Your task to perform on an android device: open a bookmark in the chrome app Image 0: 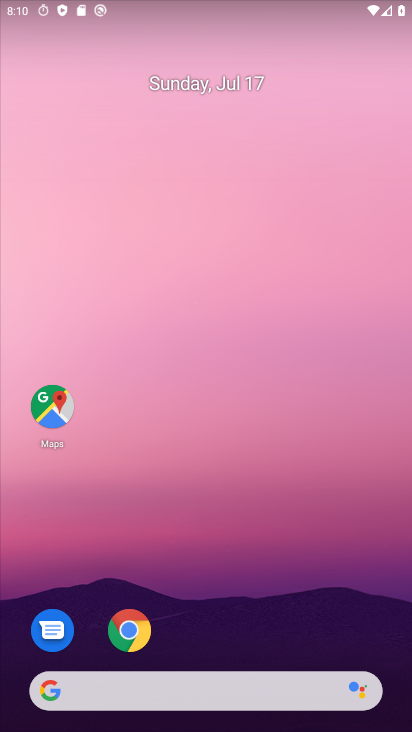
Step 0: click (142, 632)
Your task to perform on an android device: open a bookmark in the chrome app Image 1: 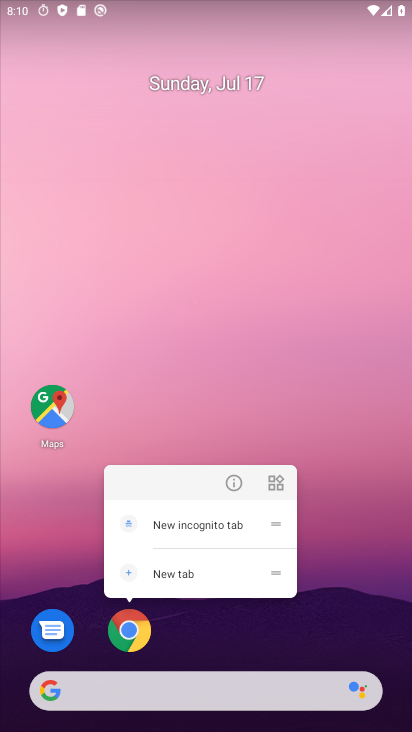
Step 1: click (128, 640)
Your task to perform on an android device: open a bookmark in the chrome app Image 2: 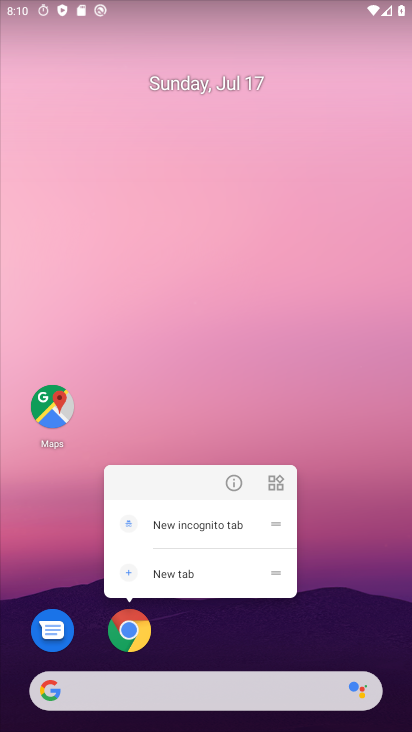
Step 2: click (114, 610)
Your task to perform on an android device: open a bookmark in the chrome app Image 3: 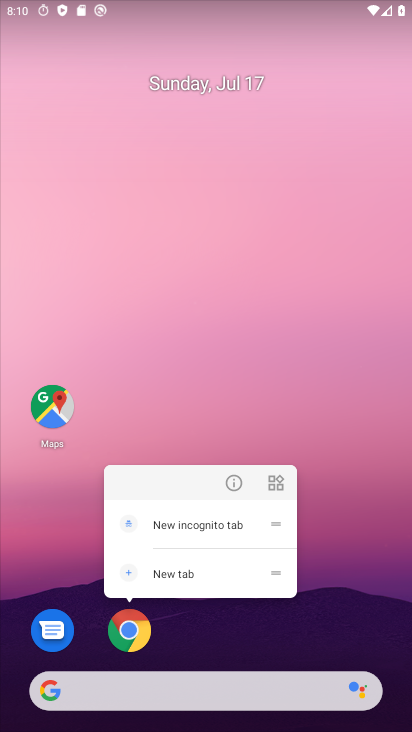
Step 3: click (129, 639)
Your task to perform on an android device: open a bookmark in the chrome app Image 4: 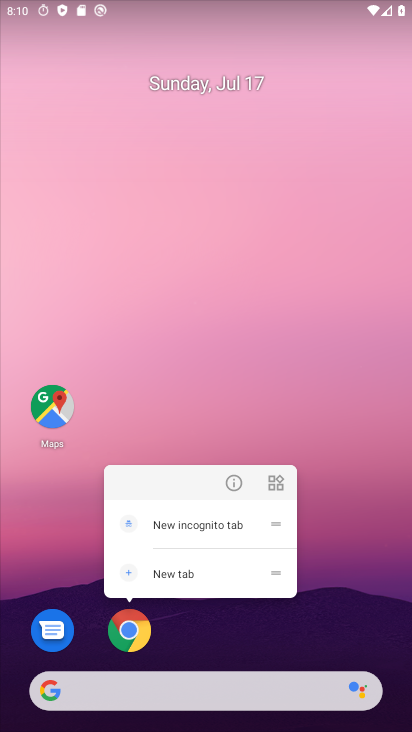
Step 4: click (132, 632)
Your task to perform on an android device: open a bookmark in the chrome app Image 5: 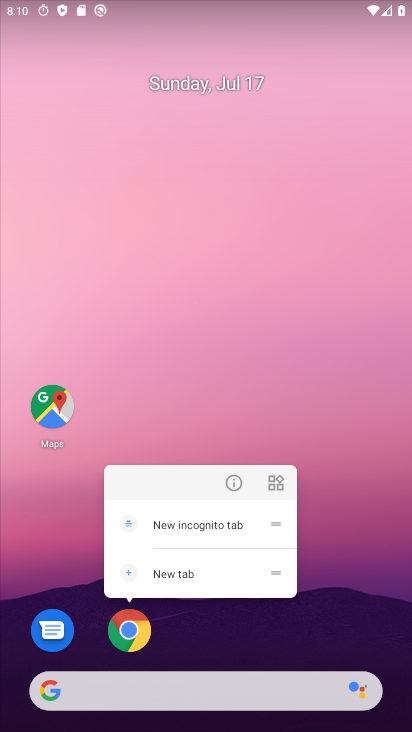
Step 5: click (178, 599)
Your task to perform on an android device: open a bookmark in the chrome app Image 6: 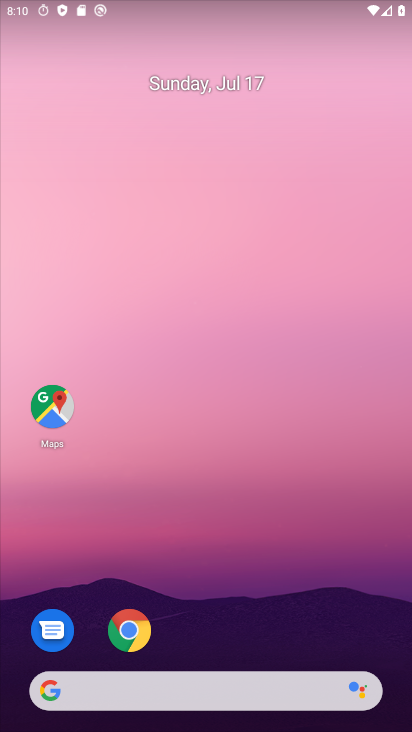
Step 6: click (130, 631)
Your task to perform on an android device: open a bookmark in the chrome app Image 7: 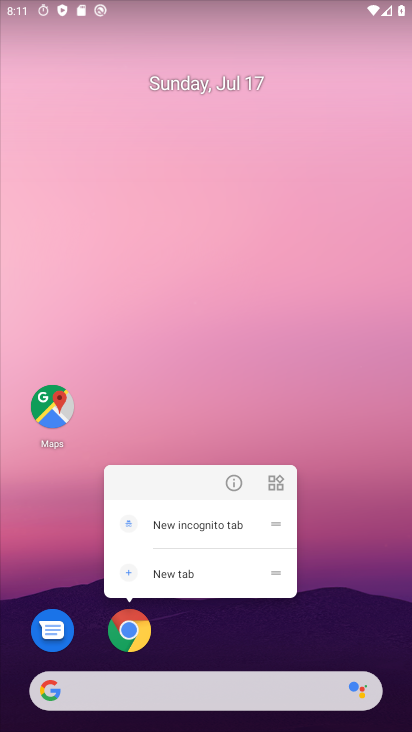
Step 7: click (130, 630)
Your task to perform on an android device: open a bookmark in the chrome app Image 8: 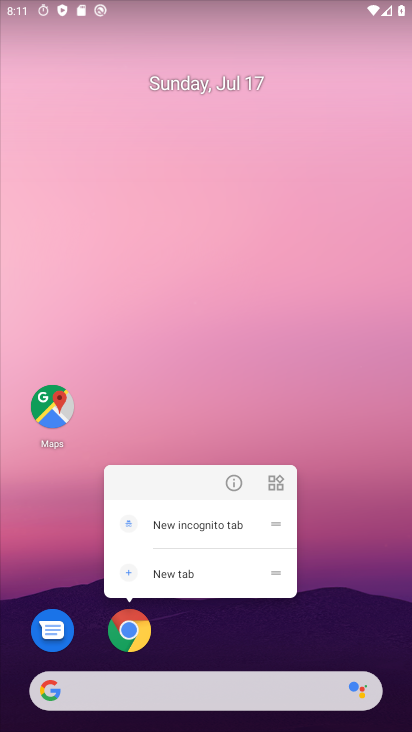
Step 8: task complete